Your task to perform on an android device: Open Google Image 0: 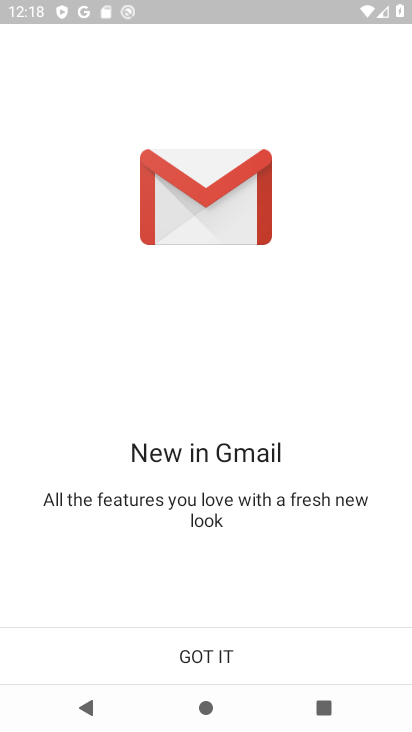
Step 0: press home button
Your task to perform on an android device: Open Google Image 1: 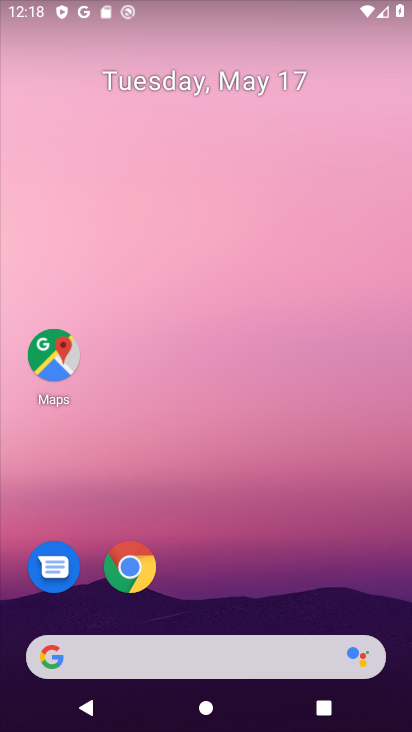
Step 1: drag from (370, 577) to (363, 121)
Your task to perform on an android device: Open Google Image 2: 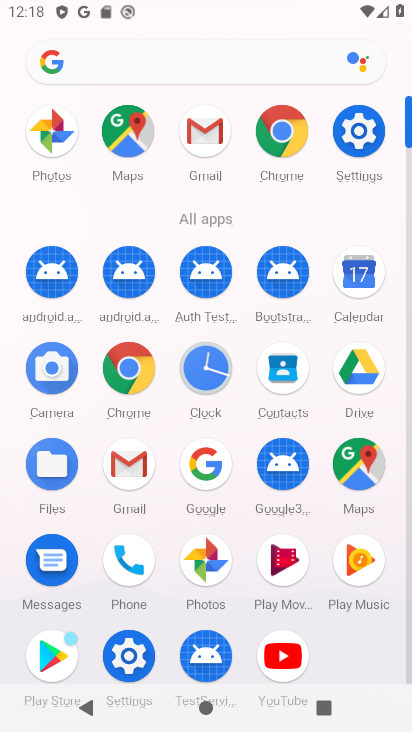
Step 2: click (199, 473)
Your task to perform on an android device: Open Google Image 3: 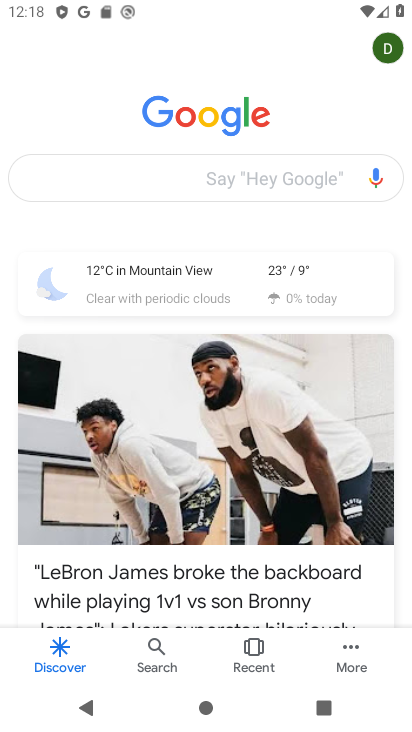
Step 3: task complete